Your task to perform on an android device: find snoozed emails in the gmail app Image 0: 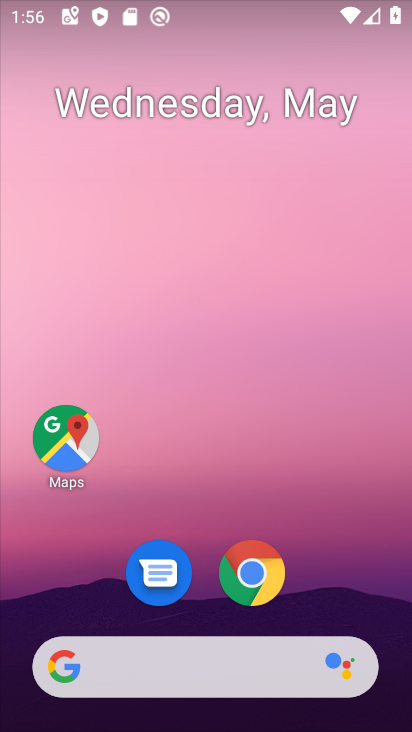
Step 0: drag from (309, 581) to (293, 38)
Your task to perform on an android device: find snoozed emails in the gmail app Image 1: 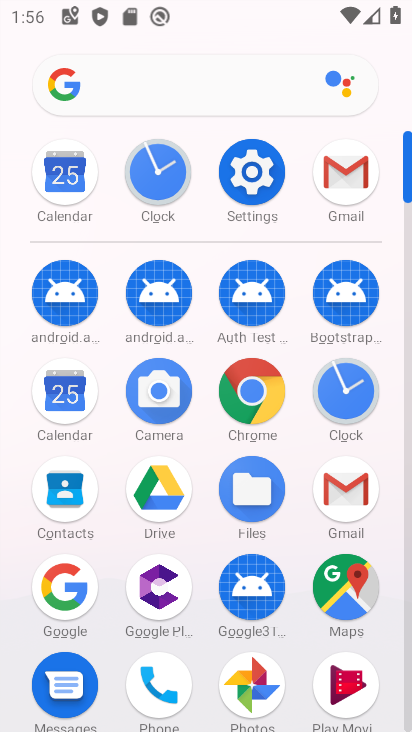
Step 1: click (346, 182)
Your task to perform on an android device: find snoozed emails in the gmail app Image 2: 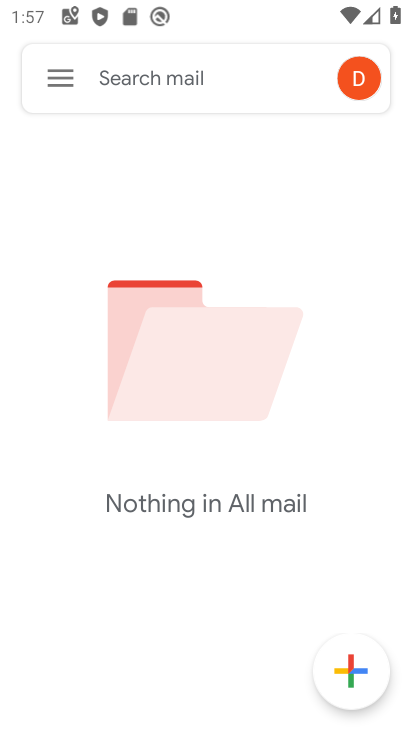
Step 2: click (60, 84)
Your task to perform on an android device: find snoozed emails in the gmail app Image 3: 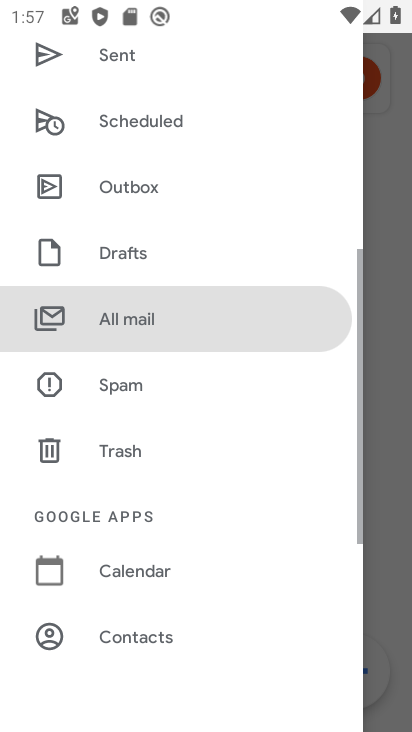
Step 3: drag from (120, 107) to (148, 360)
Your task to perform on an android device: find snoozed emails in the gmail app Image 4: 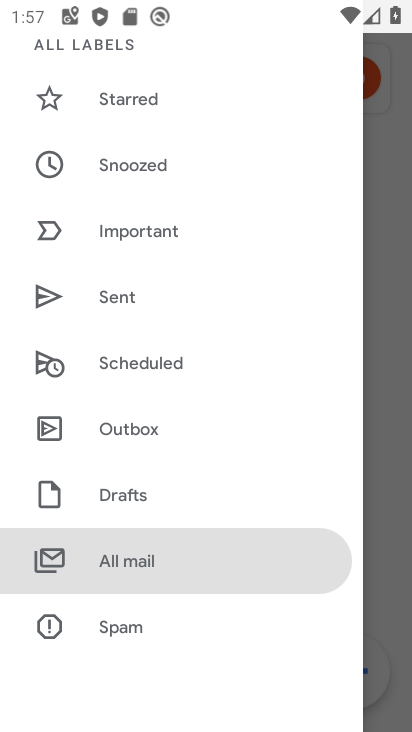
Step 4: click (161, 167)
Your task to perform on an android device: find snoozed emails in the gmail app Image 5: 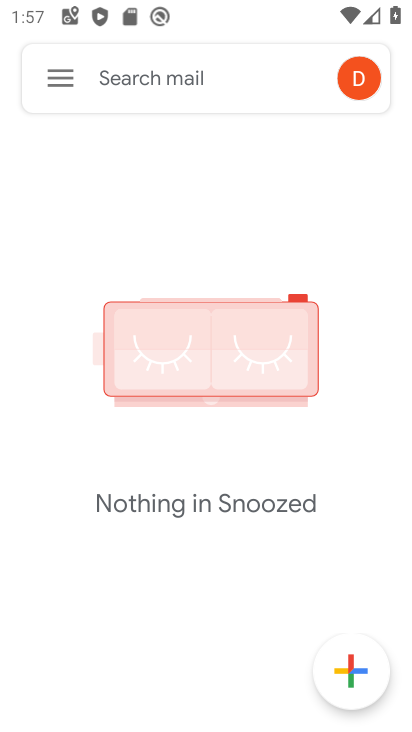
Step 5: task complete